Your task to perform on an android device: Open calendar and show me the first week of next month Image 0: 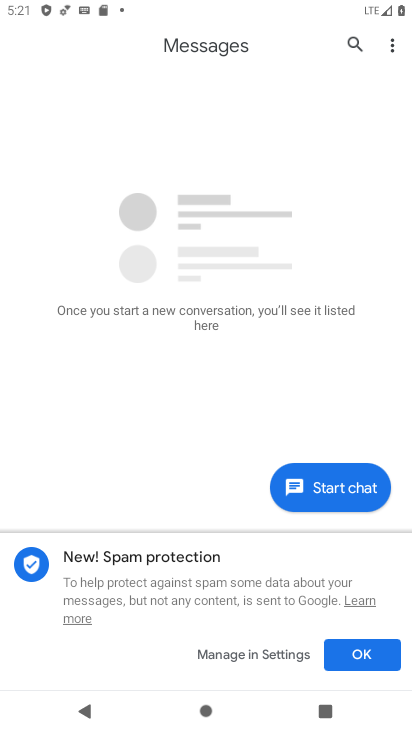
Step 0: press home button
Your task to perform on an android device: Open calendar and show me the first week of next month Image 1: 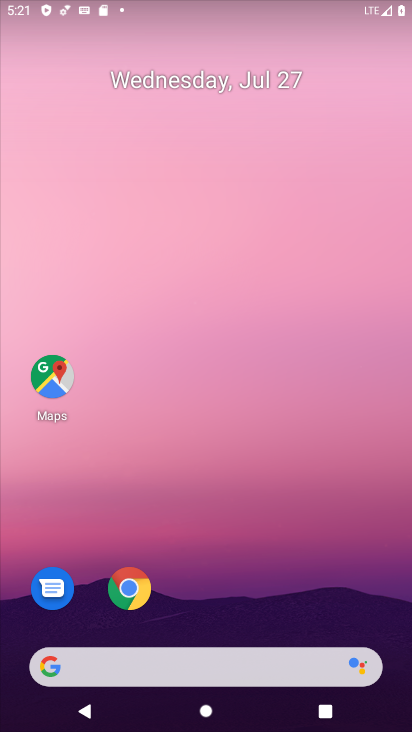
Step 1: drag from (229, 656) to (309, 0)
Your task to perform on an android device: Open calendar and show me the first week of next month Image 2: 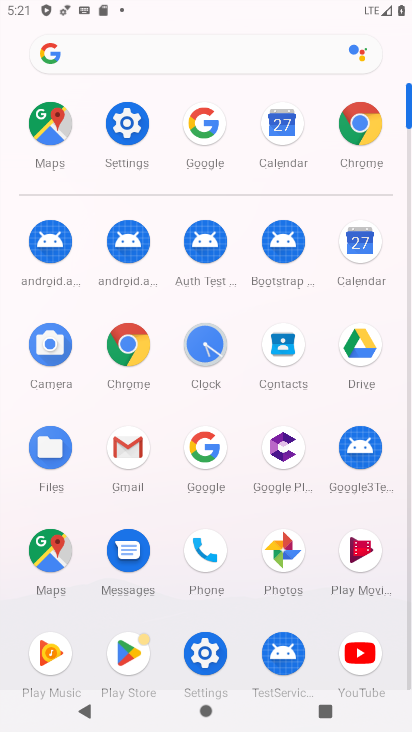
Step 2: click (362, 241)
Your task to perform on an android device: Open calendar and show me the first week of next month Image 3: 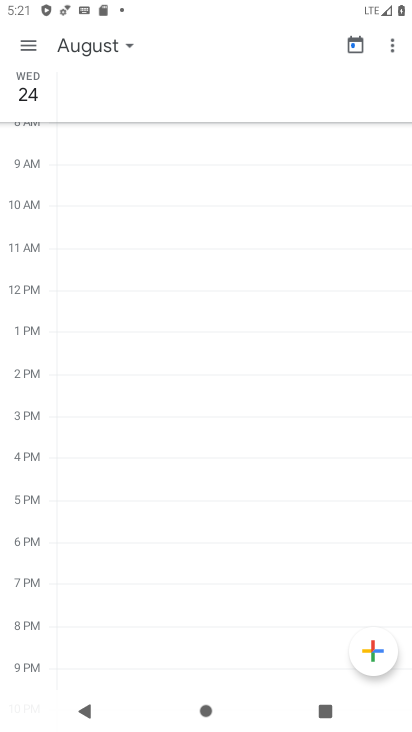
Step 3: click (120, 40)
Your task to perform on an android device: Open calendar and show me the first week of next month Image 4: 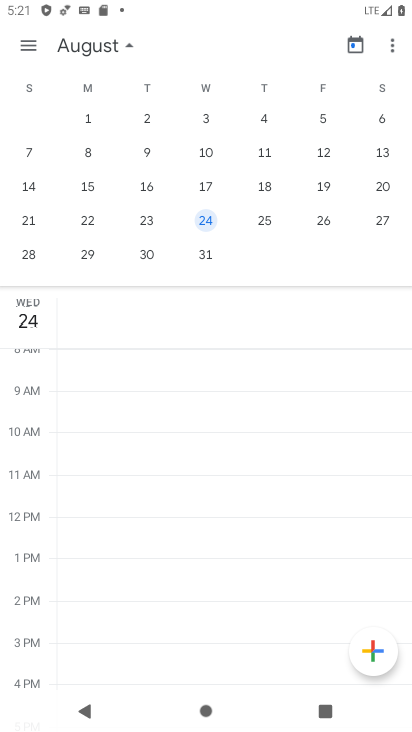
Step 4: click (260, 120)
Your task to perform on an android device: Open calendar and show me the first week of next month Image 5: 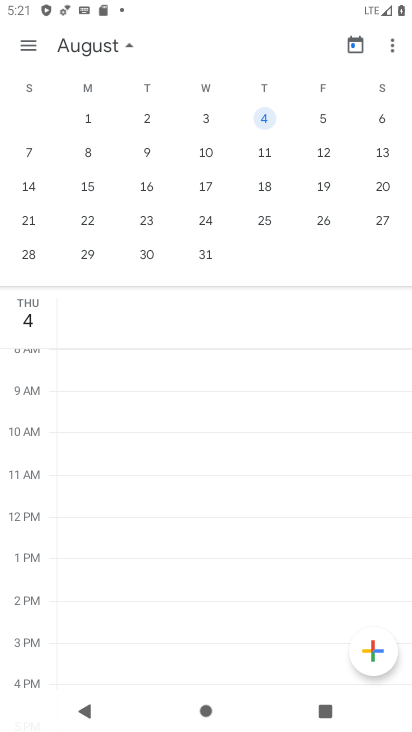
Step 5: task complete